Your task to perform on an android device: turn on notifications settings in the gmail app Image 0: 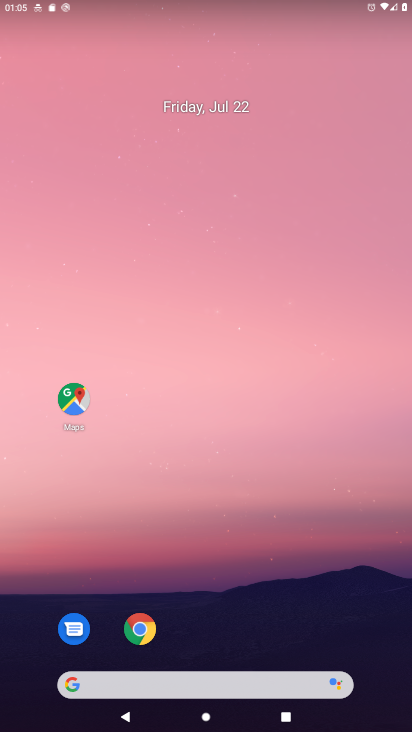
Step 0: drag from (203, 617) to (209, 172)
Your task to perform on an android device: turn on notifications settings in the gmail app Image 1: 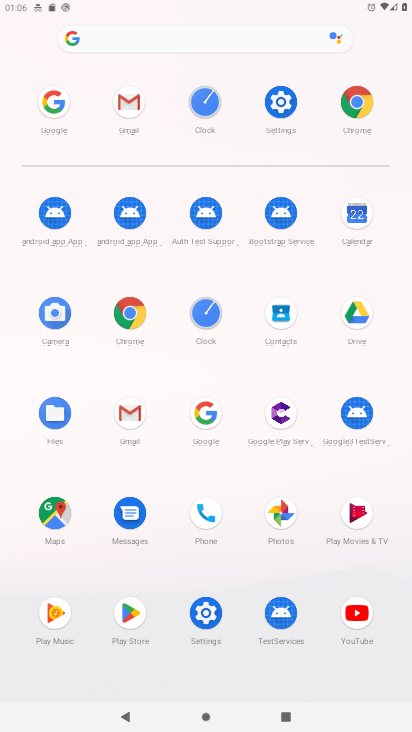
Step 1: click (126, 102)
Your task to perform on an android device: turn on notifications settings in the gmail app Image 2: 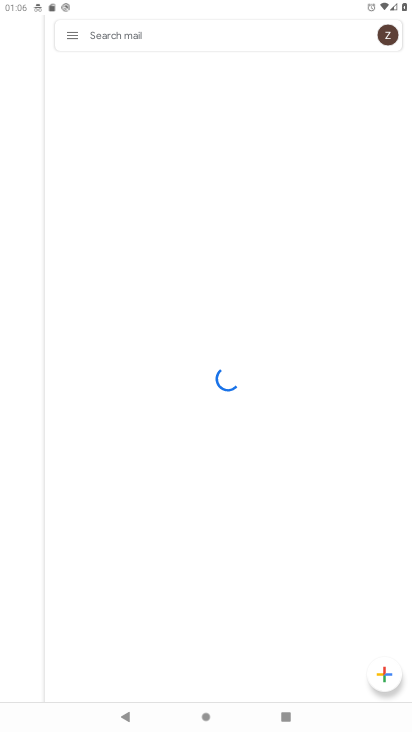
Step 2: click (68, 33)
Your task to perform on an android device: turn on notifications settings in the gmail app Image 3: 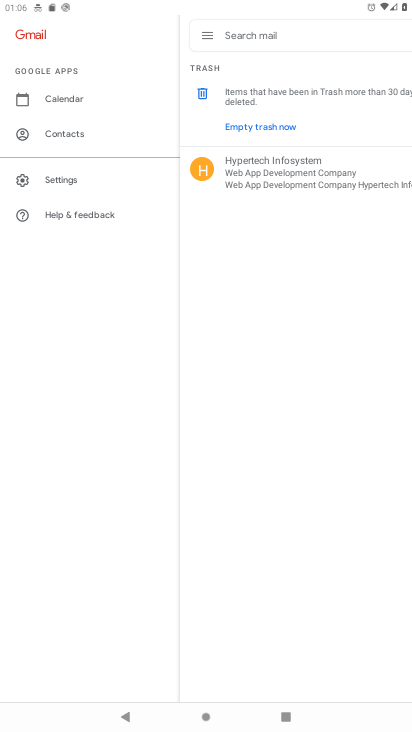
Step 3: click (65, 169)
Your task to perform on an android device: turn on notifications settings in the gmail app Image 4: 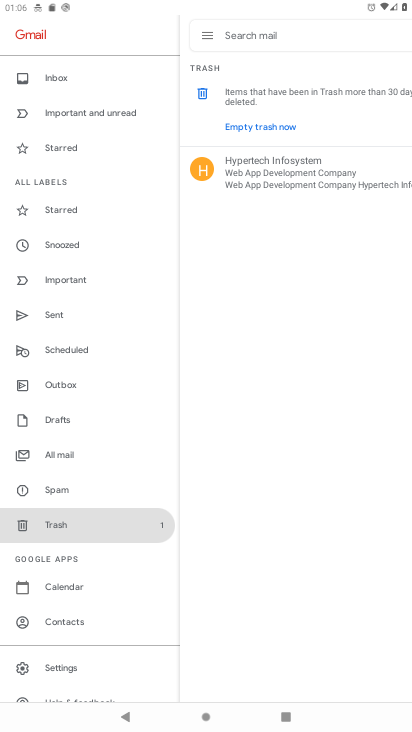
Step 4: click (77, 659)
Your task to perform on an android device: turn on notifications settings in the gmail app Image 5: 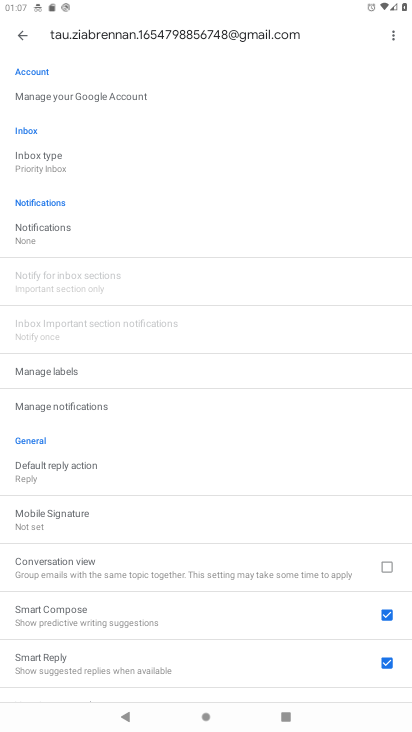
Step 5: click (62, 229)
Your task to perform on an android device: turn on notifications settings in the gmail app Image 6: 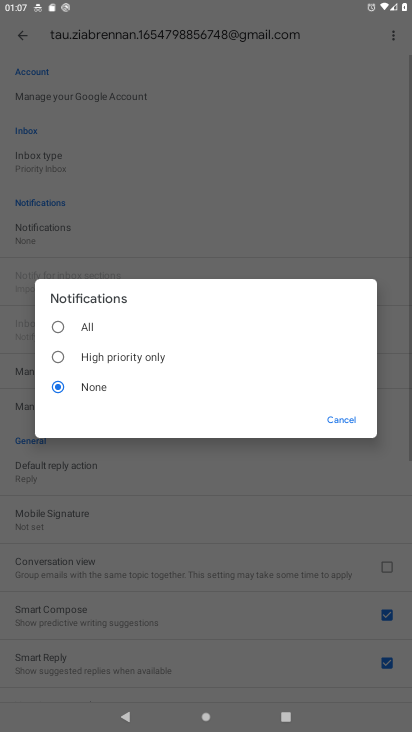
Step 6: click (75, 322)
Your task to perform on an android device: turn on notifications settings in the gmail app Image 7: 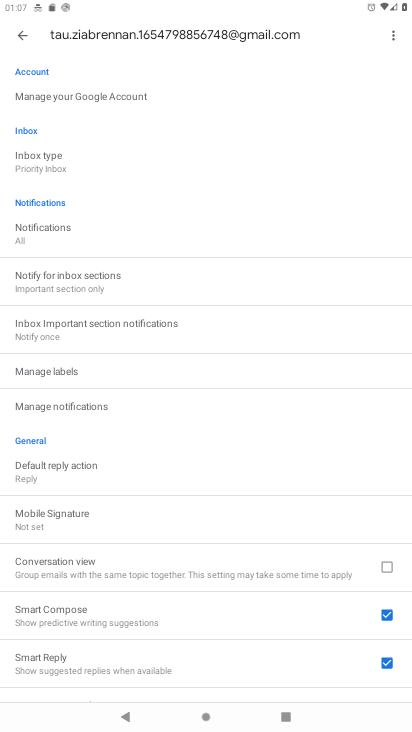
Step 7: task complete